Your task to perform on an android device: Open Google Maps Image 0: 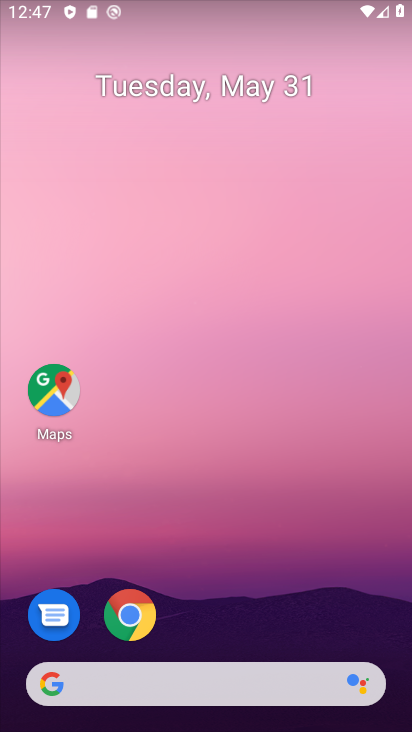
Step 0: drag from (321, 610) to (293, 238)
Your task to perform on an android device: Open Google Maps Image 1: 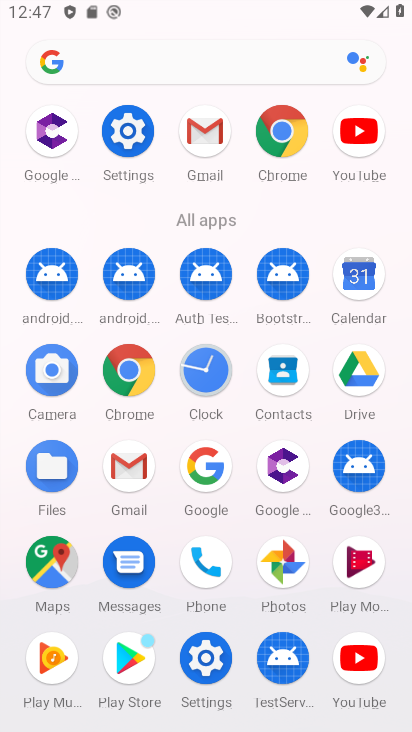
Step 1: click (50, 572)
Your task to perform on an android device: Open Google Maps Image 2: 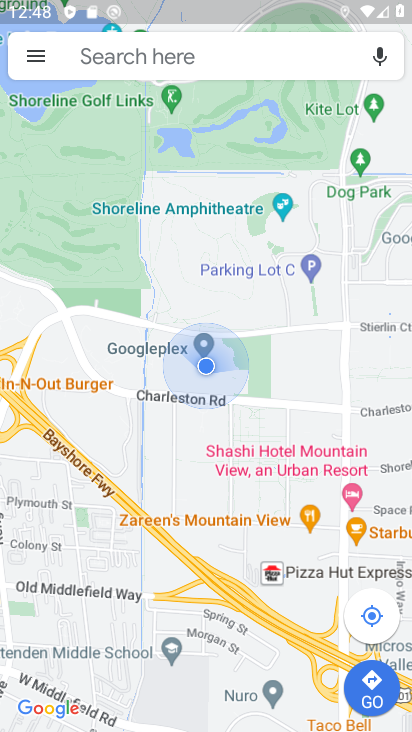
Step 2: task complete